Your task to perform on an android device: Check the news Image 0: 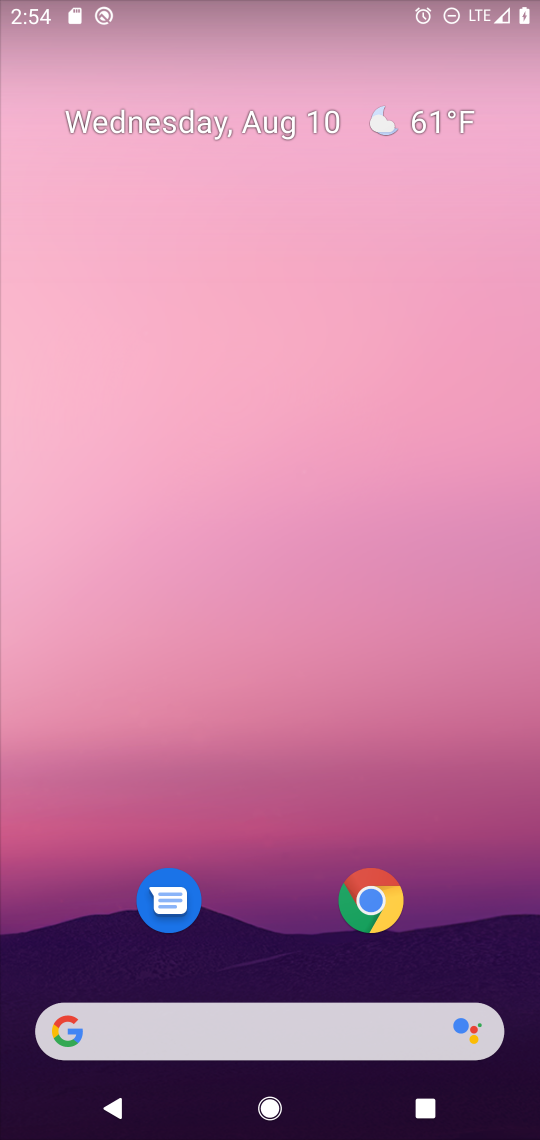
Step 0: click (313, 1043)
Your task to perform on an android device: Check the news Image 1: 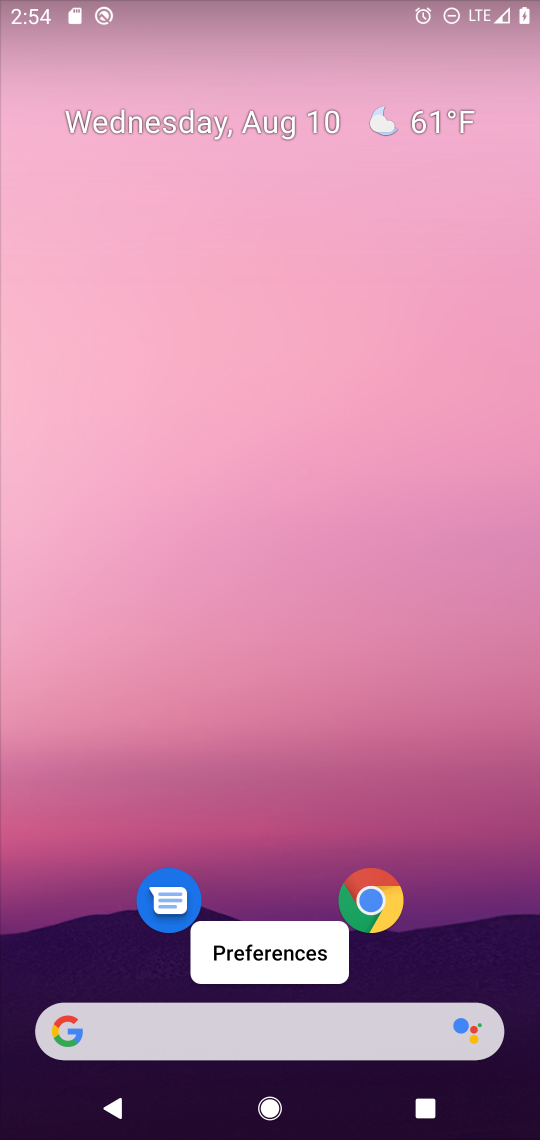
Step 1: click (313, 1047)
Your task to perform on an android device: Check the news Image 2: 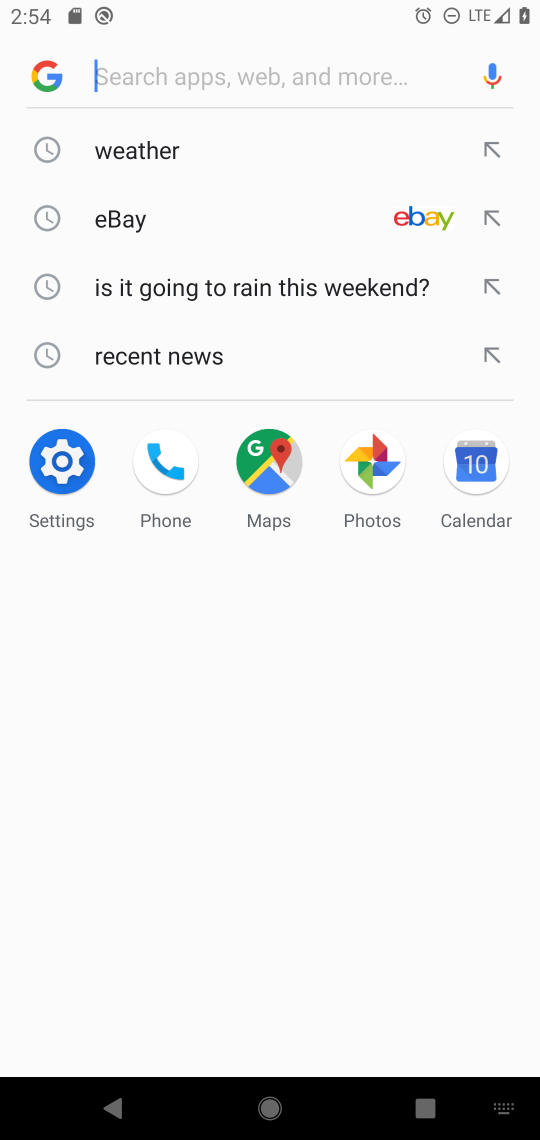
Step 2: click (177, 361)
Your task to perform on an android device: Check the news Image 3: 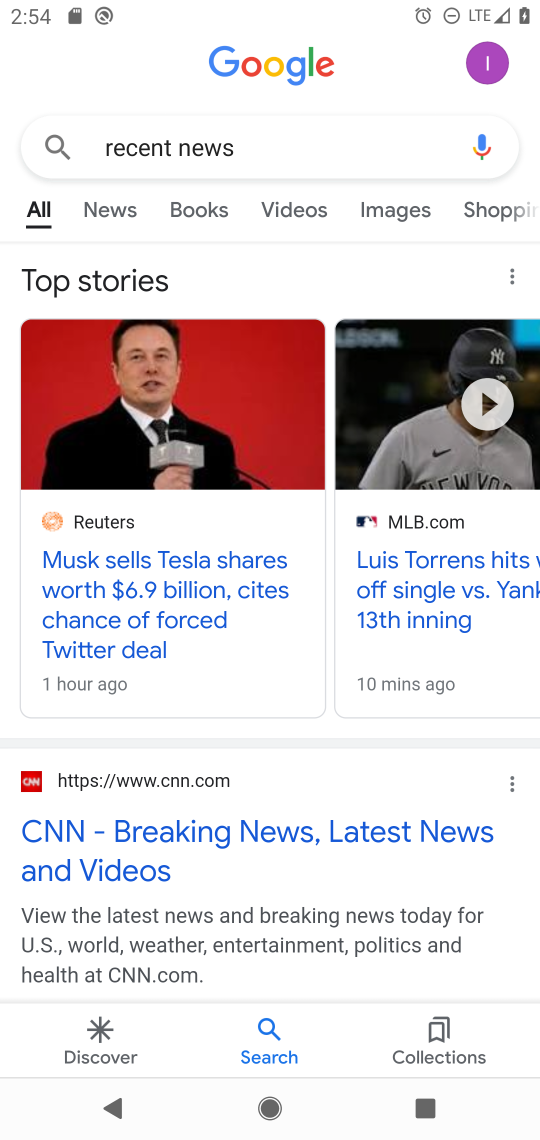
Step 3: drag from (235, 445) to (1, 410)
Your task to perform on an android device: Check the news Image 4: 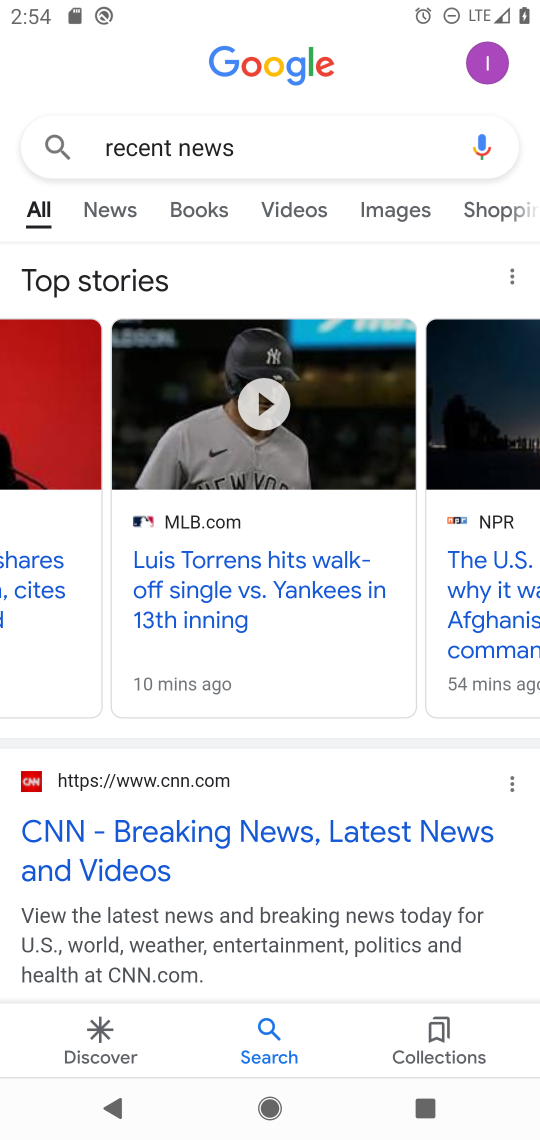
Step 4: drag from (325, 556) to (3, 518)
Your task to perform on an android device: Check the news Image 5: 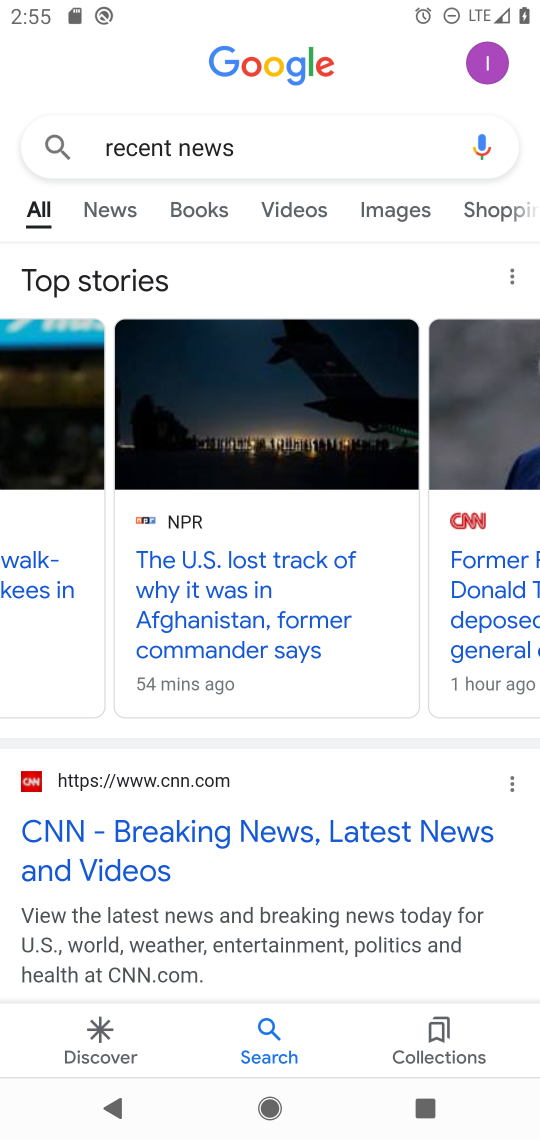
Step 5: click (220, 605)
Your task to perform on an android device: Check the news Image 6: 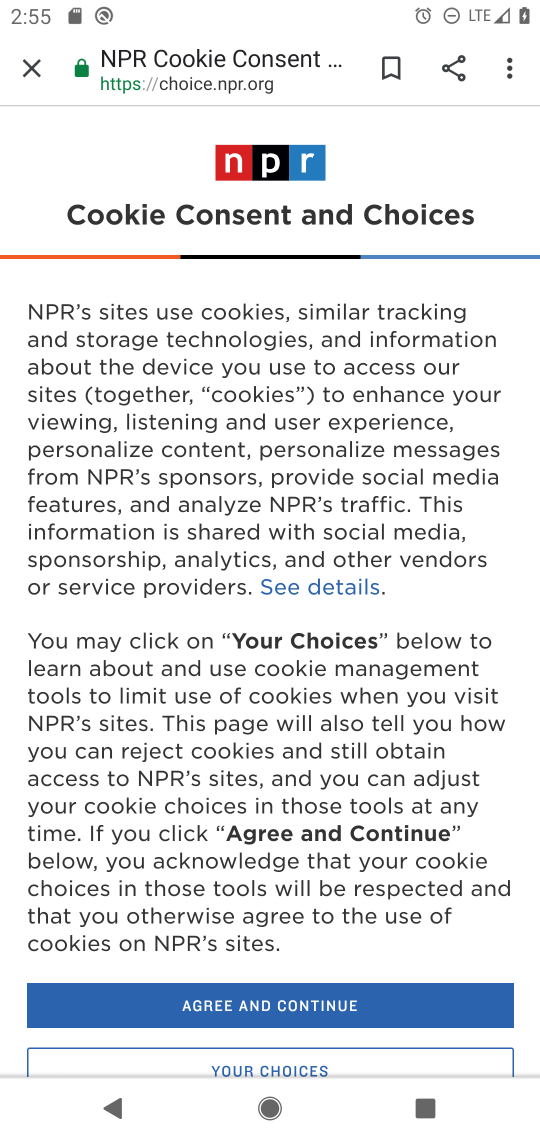
Step 6: click (344, 995)
Your task to perform on an android device: Check the news Image 7: 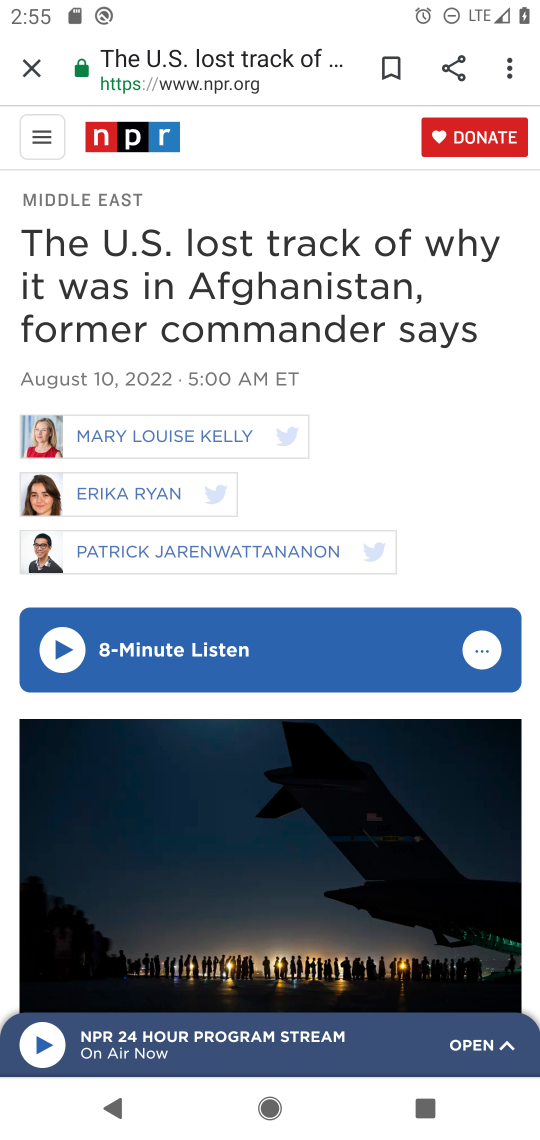
Step 7: task complete